Your task to perform on an android device: see sites visited before in the chrome app Image 0: 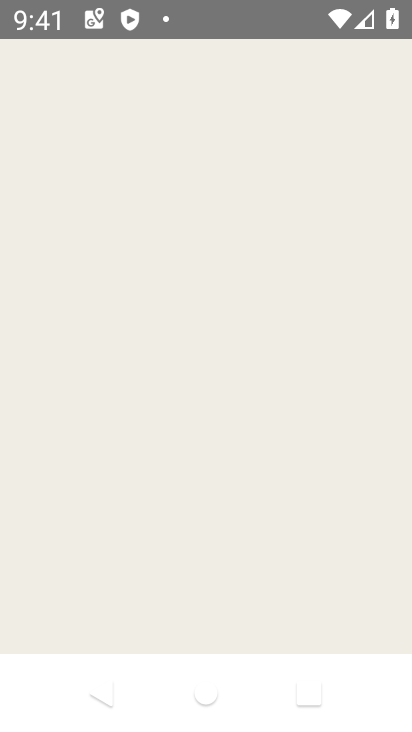
Step 0: drag from (262, 535) to (216, 25)
Your task to perform on an android device: see sites visited before in the chrome app Image 1: 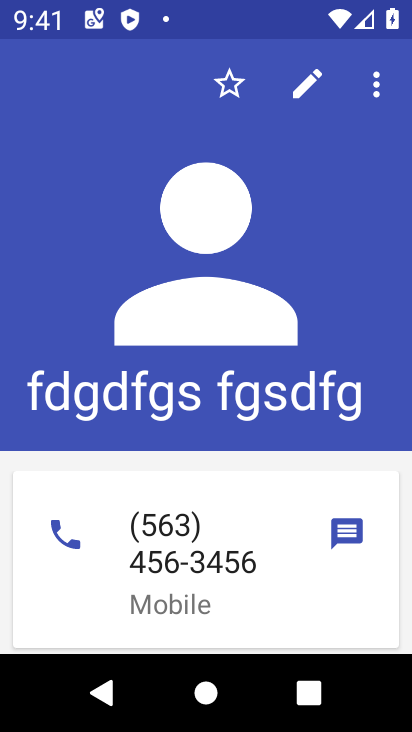
Step 1: press home button
Your task to perform on an android device: see sites visited before in the chrome app Image 2: 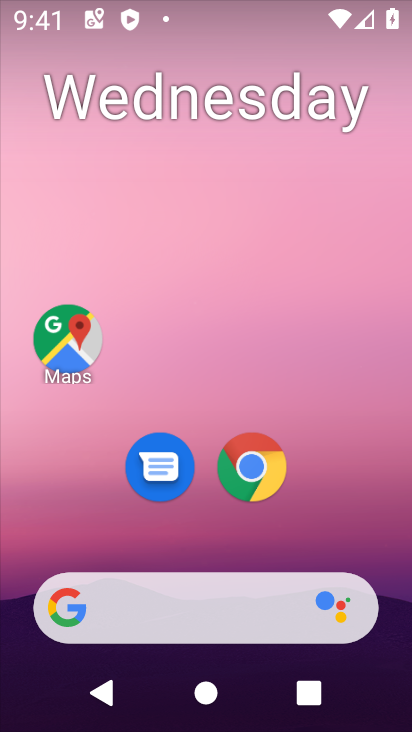
Step 2: click (262, 466)
Your task to perform on an android device: see sites visited before in the chrome app Image 3: 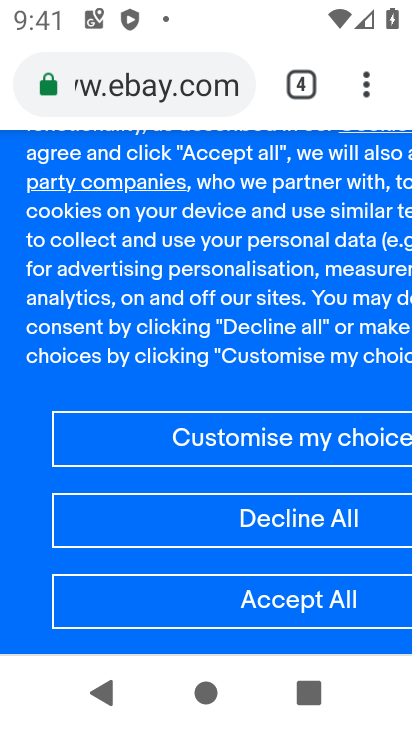
Step 3: click (373, 73)
Your task to perform on an android device: see sites visited before in the chrome app Image 4: 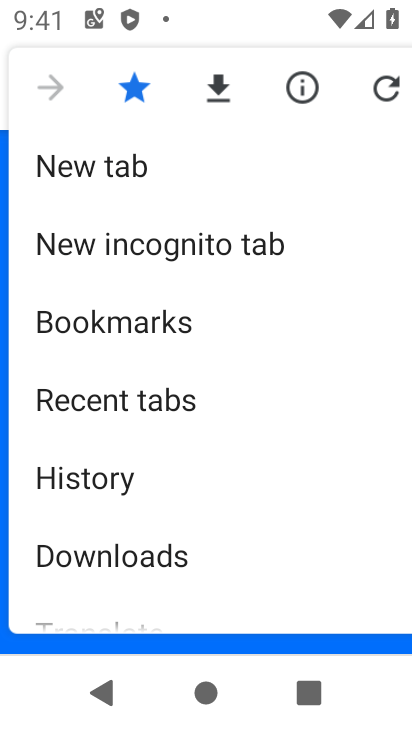
Step 4: click (142, 474)
Your task to perform on an android device: see sites visited before in the chrome app Image 5: 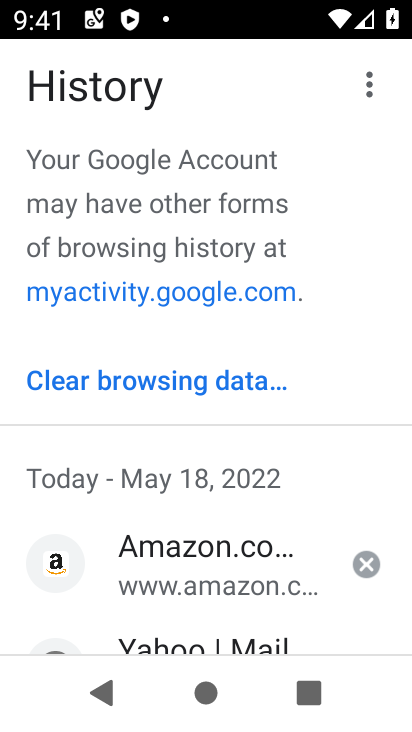
Step 5: task complete